Your task to perform on an android device: change your default location settings in chrome Image 0: 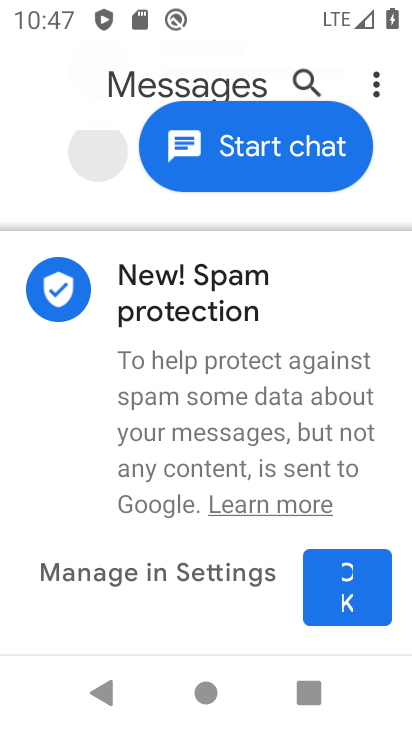
Step 0: press home button
Your task to perform on an android device: change your default location settings in chrome Image 1: 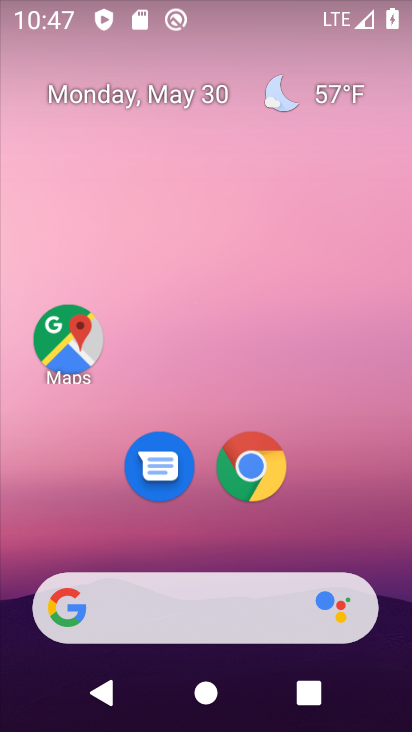
Step 1: click (256, 464)
Your task to perform on an android device: change your default location settings in chrome Image 2: 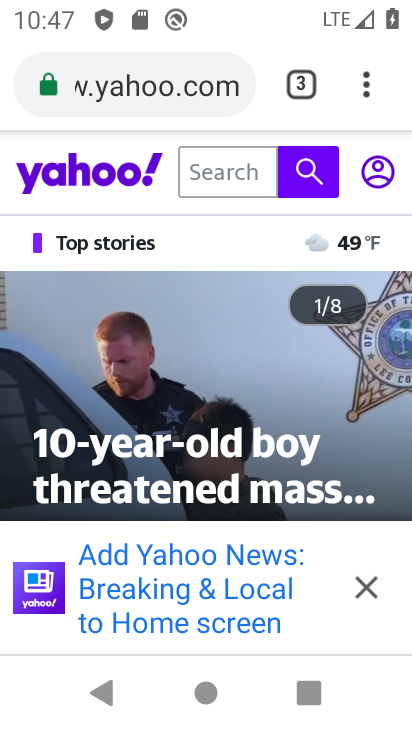
Step 2: drag from (366, 85) to (194, 507)
Your task to perform on an android device: change your default location settings in chrome Image 3: 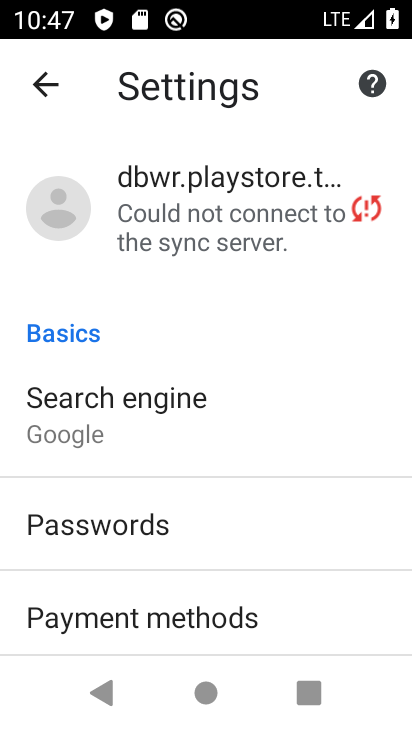
Step 3: drag from (357, 628) to (356, 120)
Your task to perform on an android device: change your default location settings in chrome Image 4: 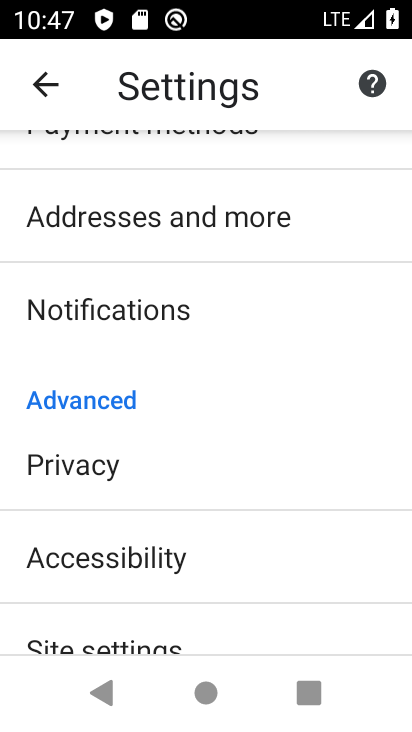
Step 4: click (181, 649)
Your task to perform on an android device: change your default location settings in chrome Image 5: 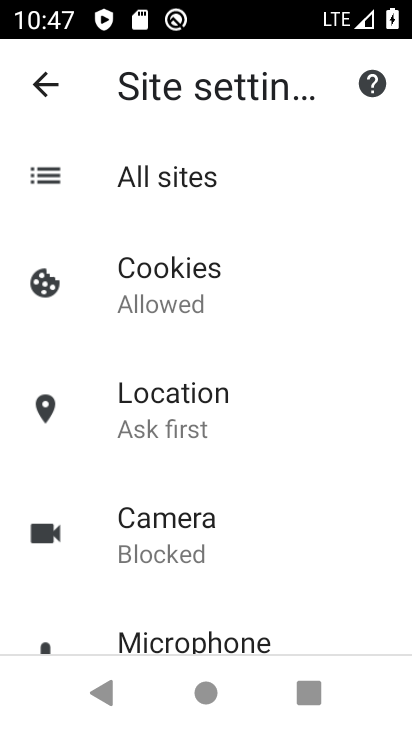
Step 5: drag from (363, 625) to (358, 10)
Your task to perform on an android device: change your default location settings in chrome Image 6: 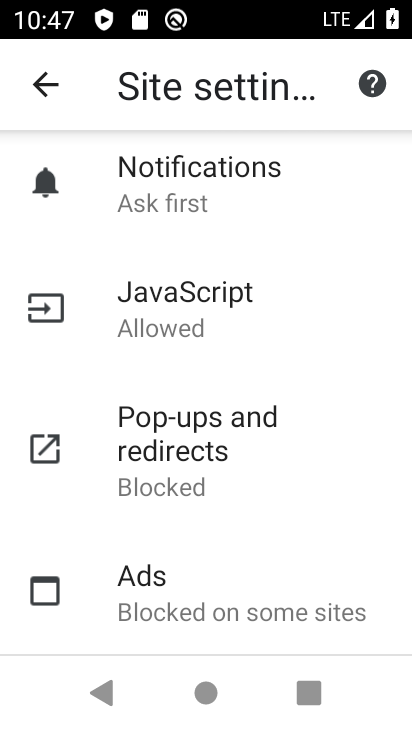
Step 6: drag from (387, 527) to (407, 127)
Your task to perform on an android device: change your default location settings in chrome Image 7: 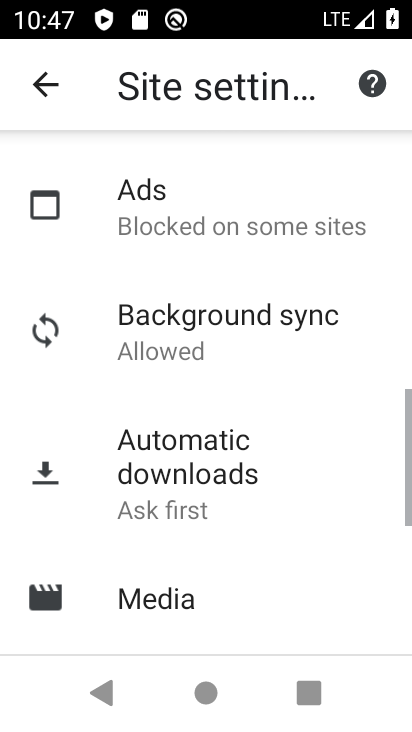
Step 7: drag from (334, 148) to (300, 720)
Your task to perform on an android device: change your default location settings in chrome Image 8: 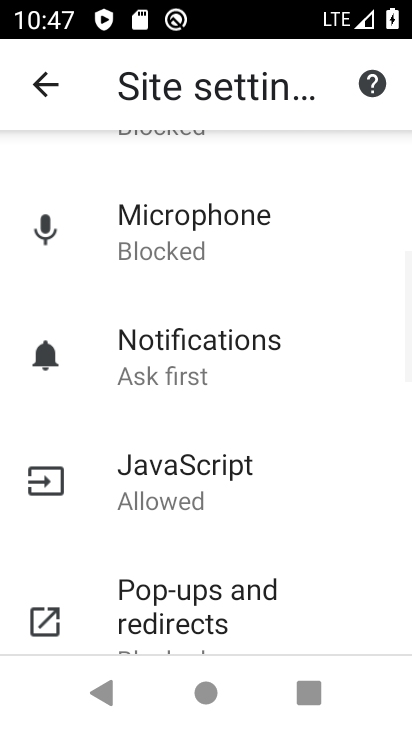
Step 8: drag from (348, 157) to (334, 604)
Your task to perform on an android device: change your default location settings in chrome Image 9: 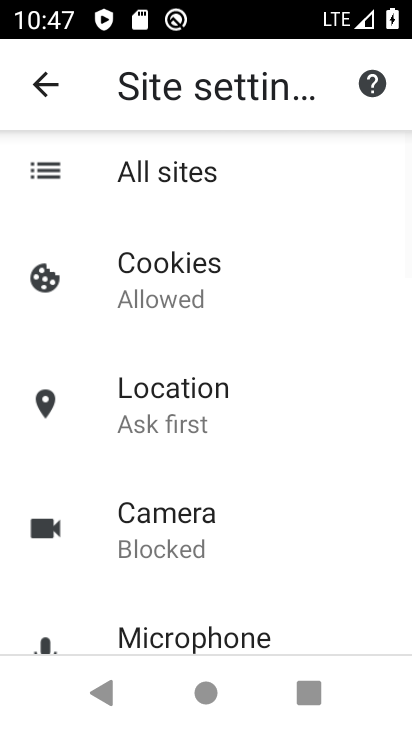
Step 9: click (192, 398)
Your task to perform on an android device: change your default location settings in chrome Image 10: 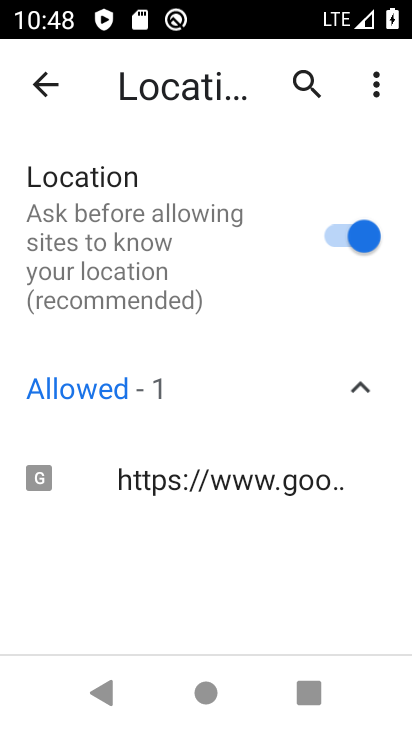
Step 10: click (345, 232)
Your task to perform on an android device: change your default location settings in chrome Image 11: 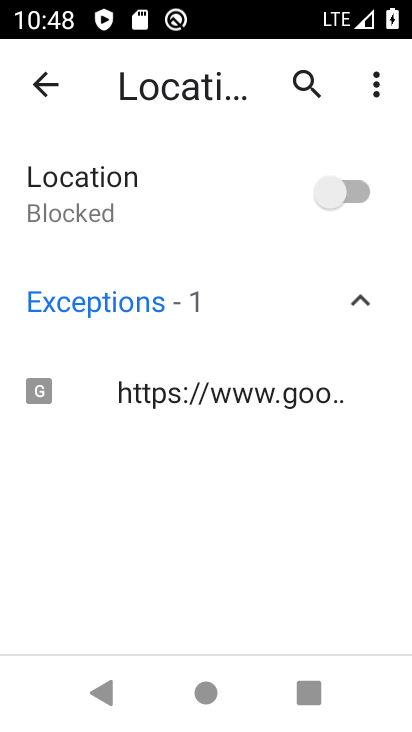
Step 11: task complete